Your task to perform on an android device: turn off translation in the chrome app Image 0: 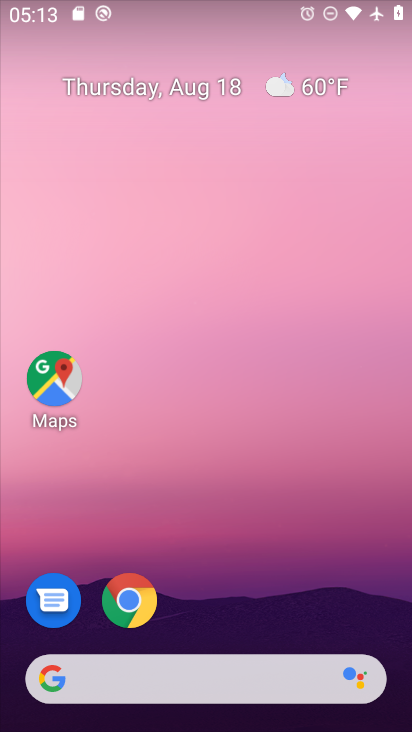
Step 0: click (115, 604)
Your task to perform on an android device: turn off translation in the chrome app Image 1: 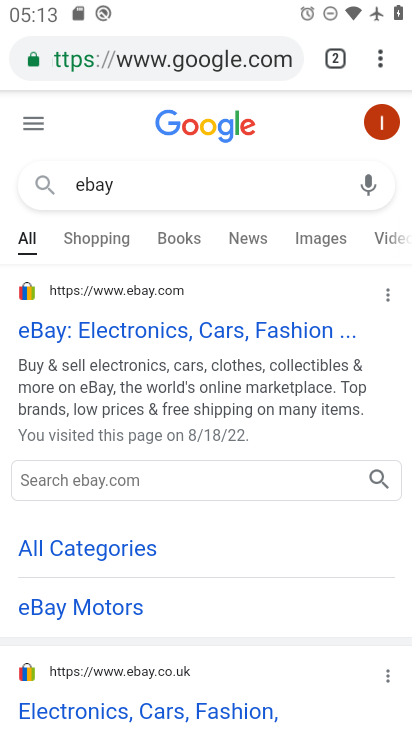
Step 1: drag from (382, 62) to (173, 640)
Your task to perform on an android device: turn off translation in the chrome app Image 2: 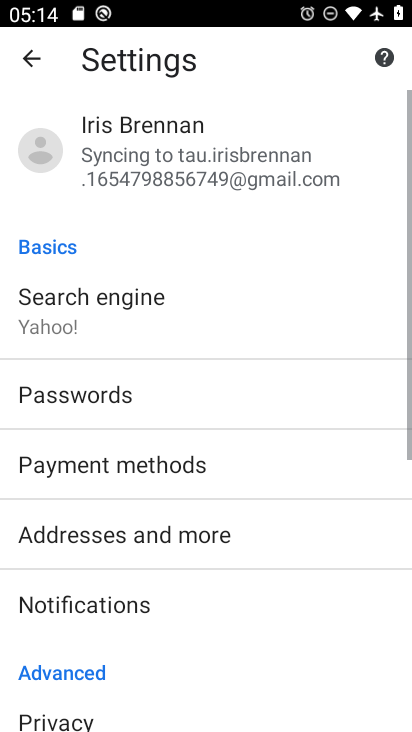
Step 2: drag from (220, 642) to (245, 197)
Your task to perform on an android device: turn off translation in the chrome app Image 3: 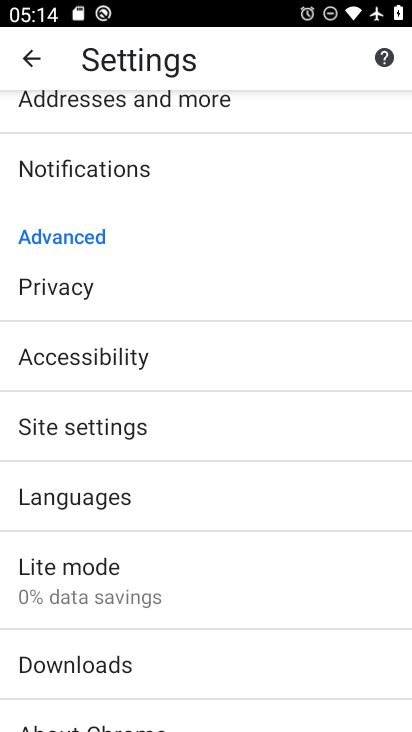
Step 3: click (70, 500)
Your task to perform on an android device: turn off translation in the chrome app Image 4: 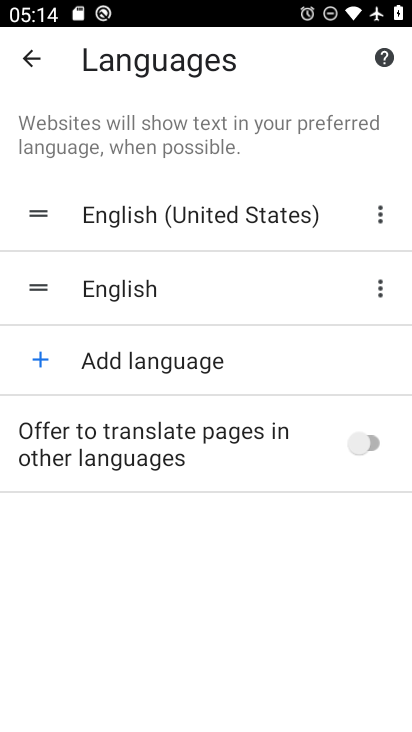
Step 4: task complete